Your task to perform on an android device: Go to ESPN.com Image 0: 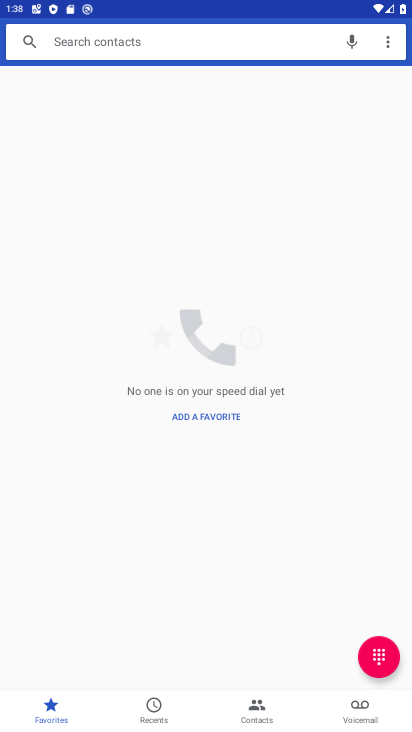
Step 0: click (78, 43)
Your task to perform on an android device: Go to ESPN.com Image 1: 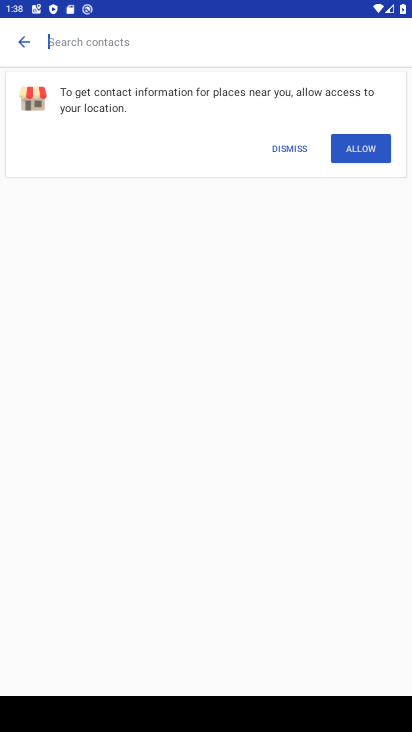
Step 1: type " ESPN.com"
Your task to perform on an android device: Go to ESPN.com Image 2: 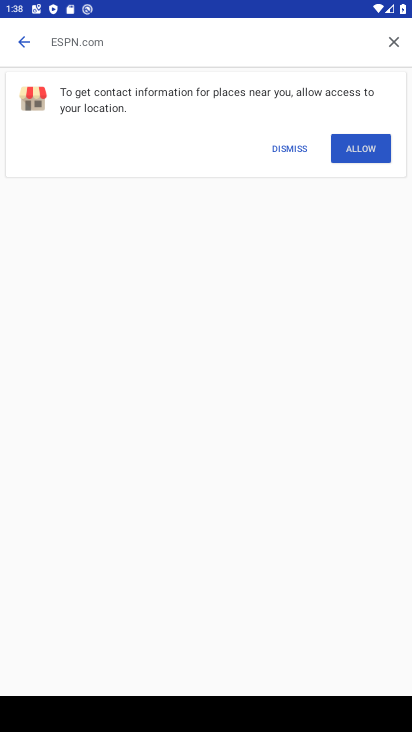
Step 2: click (362, 149)
Your task to perform on an android device: Go to ESPN.com Image 3: 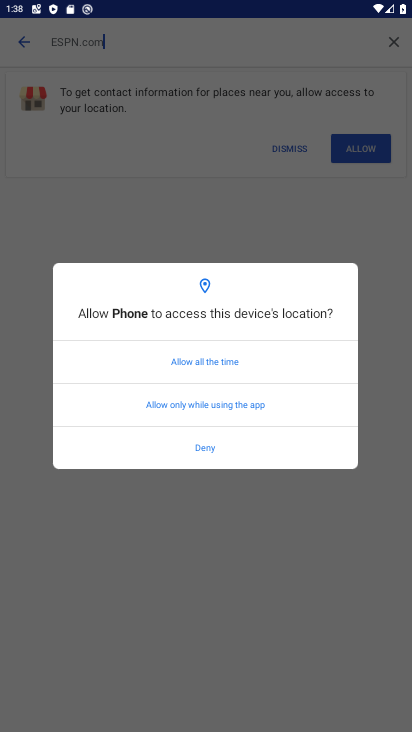
Step 3: click (197, 363)
Your task to perform on an android device: Go to ESPN.com Image 4: 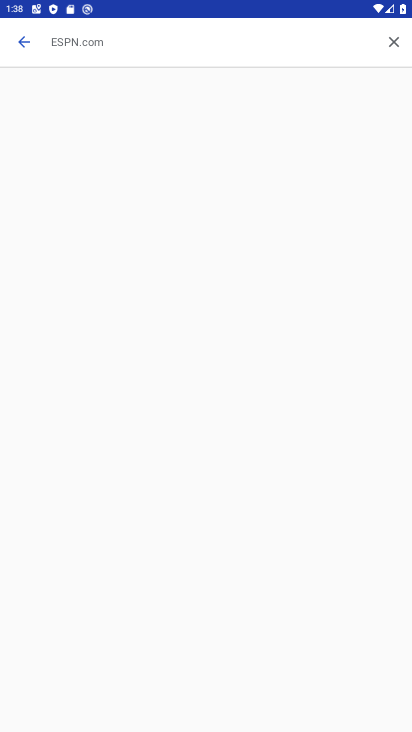
Step 4: click (389, 39)
Your task to perform on an android device: Go to ESPN.com Image 5: 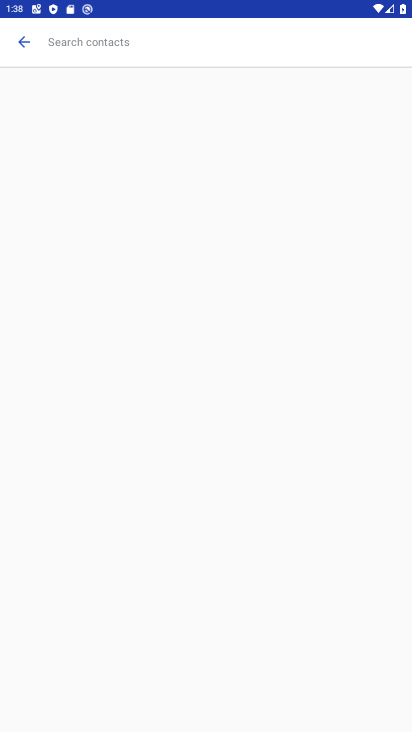
Step 5: type " ESPN.com"
Your task to perform on an android device: Go to ESPN.com Image 6: 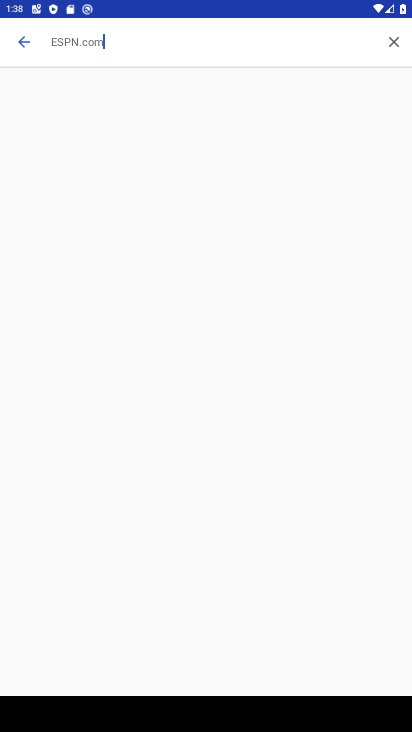
Step 6: click (84, 46)
Your task to perform on an android device: Go to ESPN.com Image 7: 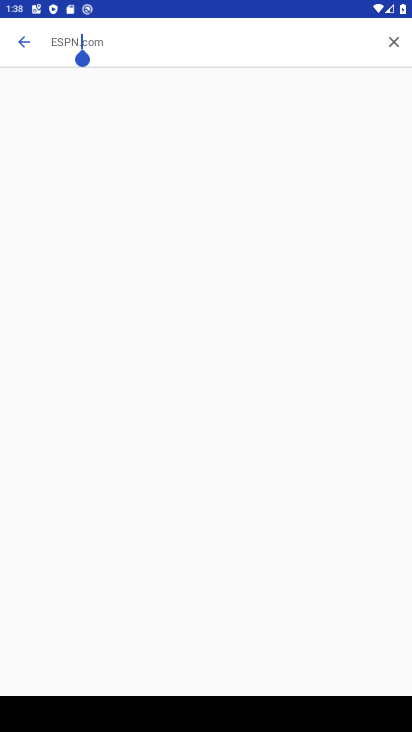
Step 7: click (110, 44)
Your task to perform on an android device: Go to ESPN.com Image 8: 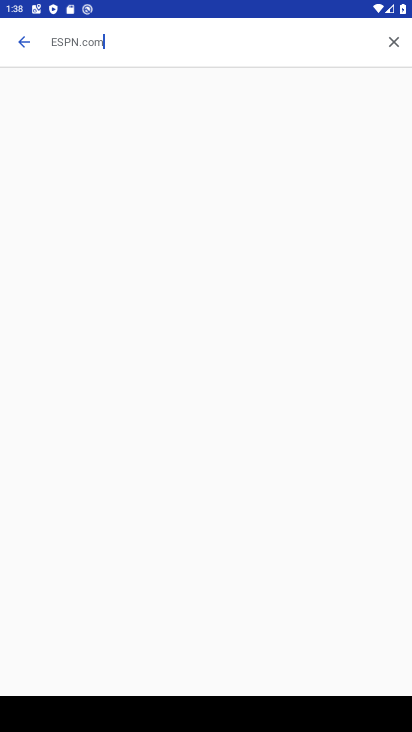
Step 8: click (395, 40)
Your task to perform on an android device: Go to ESPN.com Image 9: 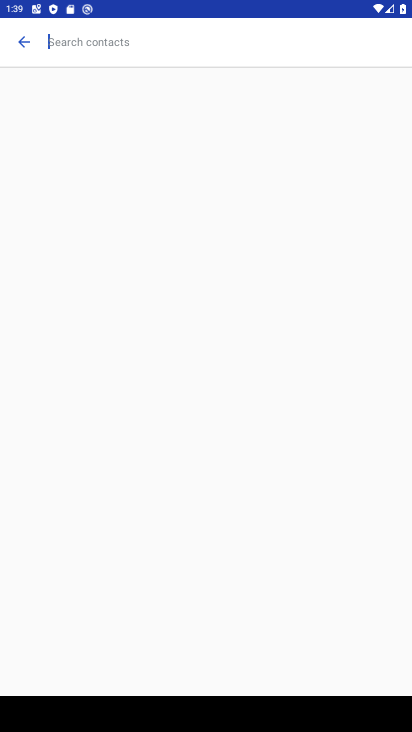
Step 9: press home button
Your task to perform on an android device: Go to ESPN.com Image 10: 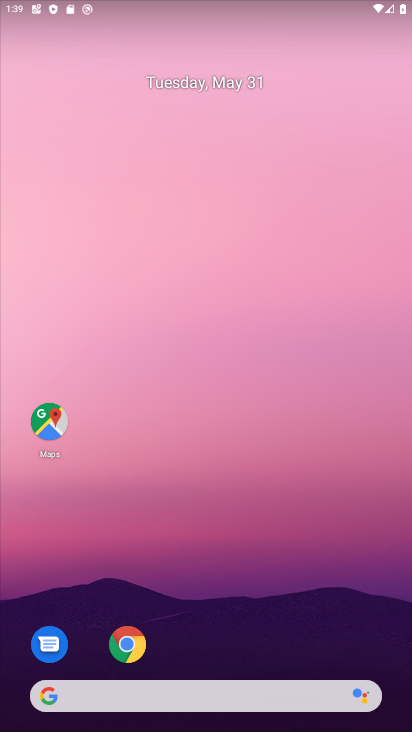
Step 10: click (127, 645)
Your task to perform on an android device: Go to ESPN.com Image 11: 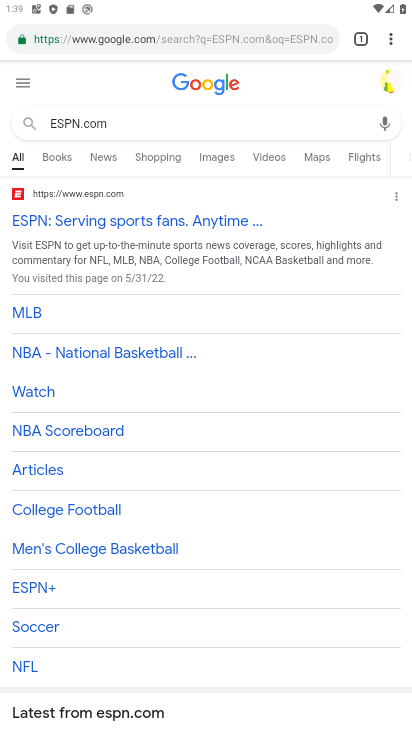
Step 11: task complete